Your task to perform on an android device: change the clock display to analog Image 0: 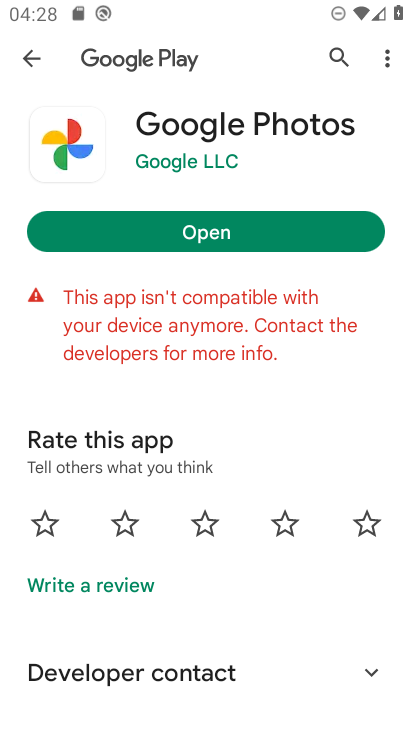
Step 0: press home button
Your task to perform on an android device: change the clock display to analog Image 1: 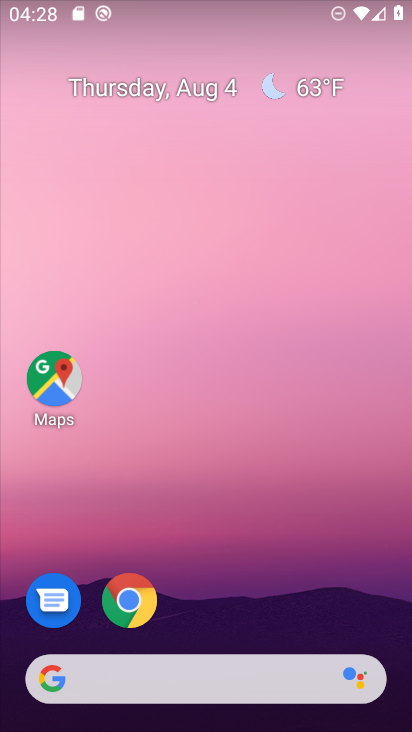
Step 1: drag from (316, 579) to (336, 73)
Your task to perform on an android device: change the clock display to analog Image 2: 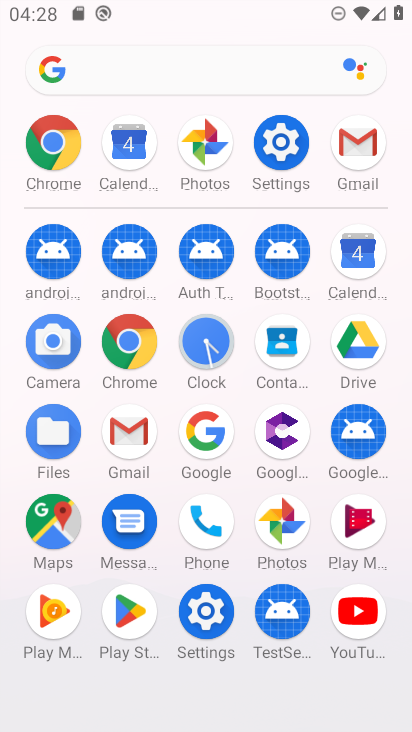
Step 2: click (216, 340)
Your task to perform on an android device: change the clock display to analog Image 3: 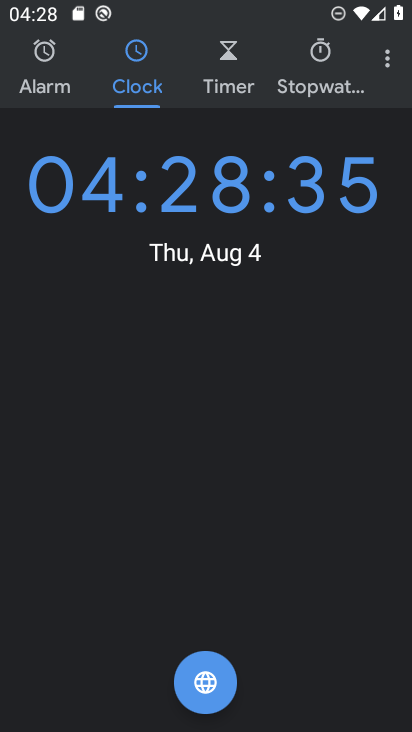
Step 3: click (383, 60)
Your task to perform on an android device: change the clock display to analog Image 4: 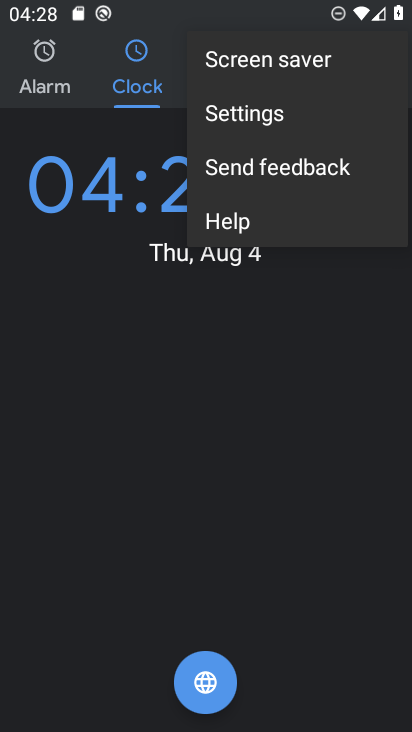
Step 4: click (260, 130)
Your task to perform on an android device: change the clock display to analog Image 5: 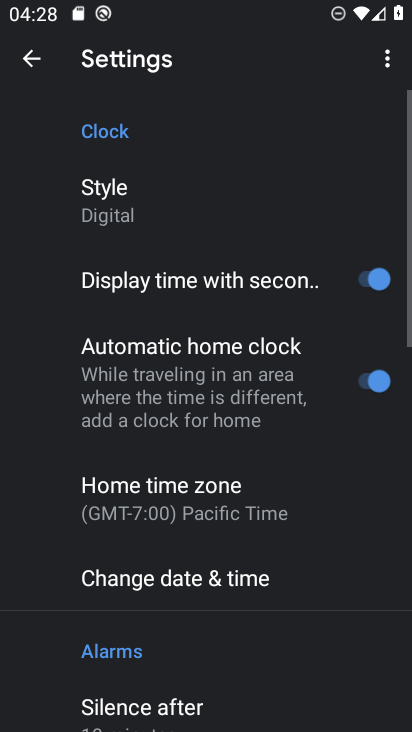
Step 5: click (118, 199)
Your task to perform on an android device: change the clock display to analog Image 6: 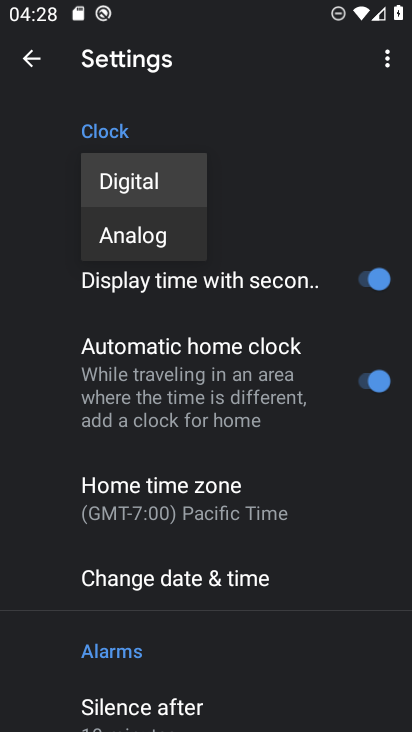
Step 6: click (138, 233)
Your task to perform on an android device: change the clock display to analog Image 7: 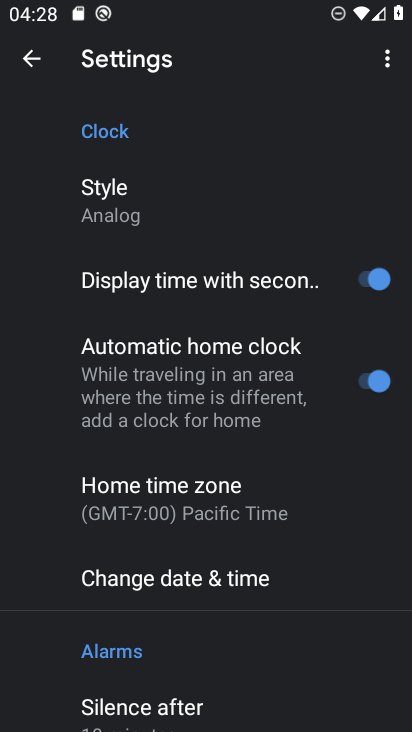
Step 7: task complete